Your task to perform on an android device: turn off airplane mode Image 0: 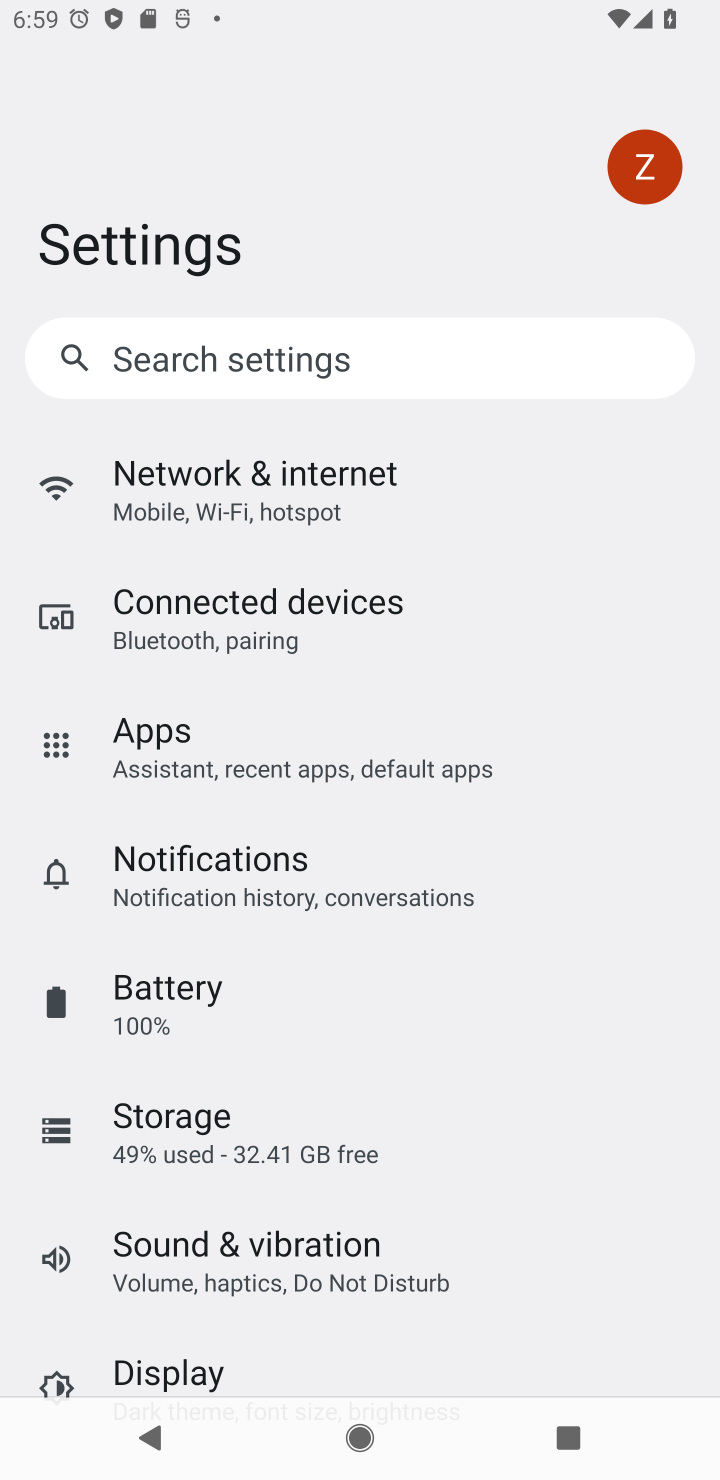
Step 0: press home button
Your task to perform on an android device: turn off airplane mode Image 1: 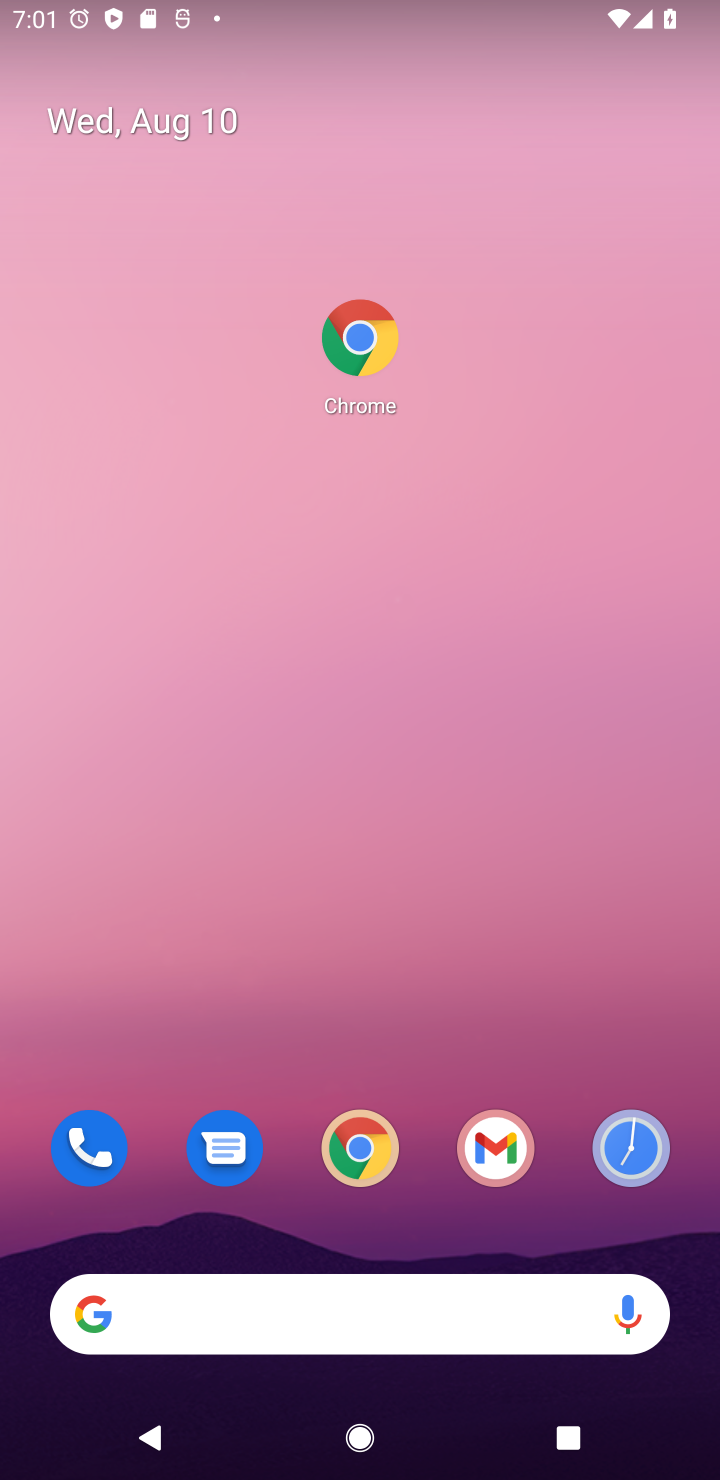
Step 1: task complete